Your task to perform on an android device: change the clock style Image 0: 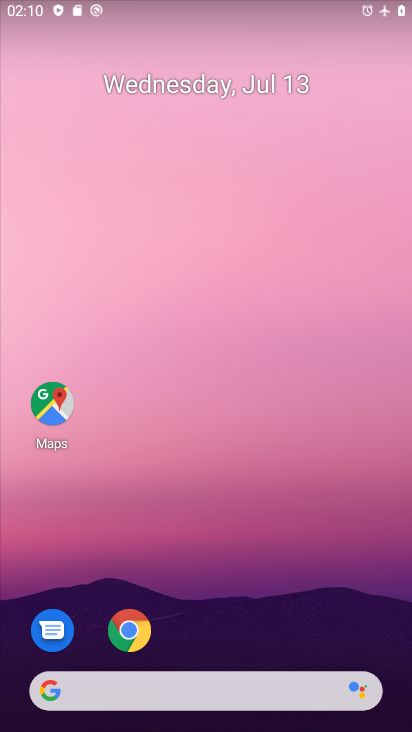
Step 0: drag from (196, 644) to (198, 316)
Your task to perform on an android device: change the clock style Image 1: 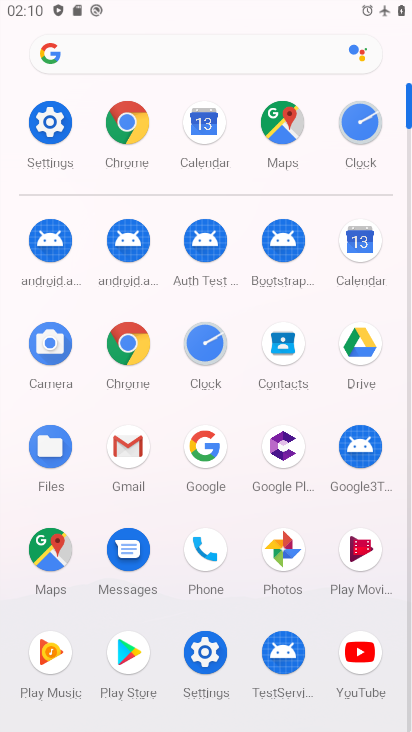
Step 1: click (344, 143)
Your task to perform on an android device: change the clock style Image 2: 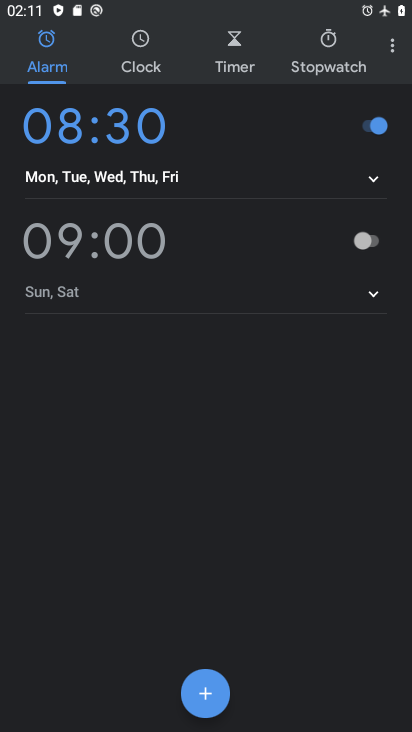
Step 2: click (384, 50)
Your task to perform on an android device: change the clock style Image 3: 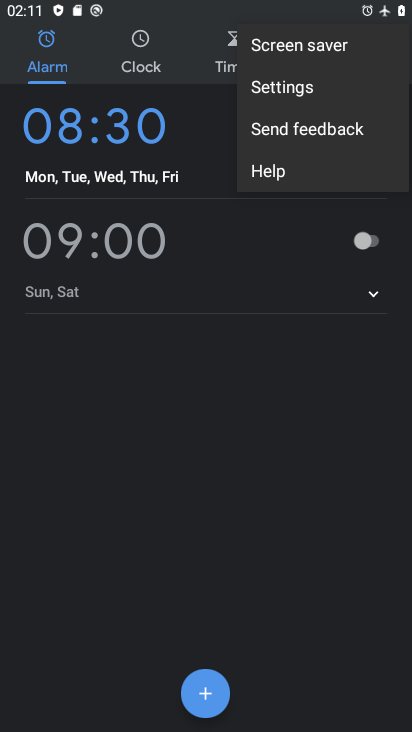
Step 3: click (338, 84)
Your task to perform on an android device: change the clock style Image 4: 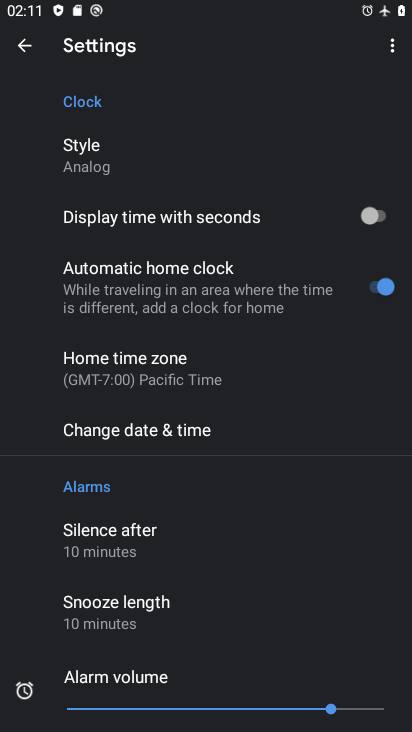
Step 4: click (142, 163)
Your task to perform on an android device: change the clock style Image 5: 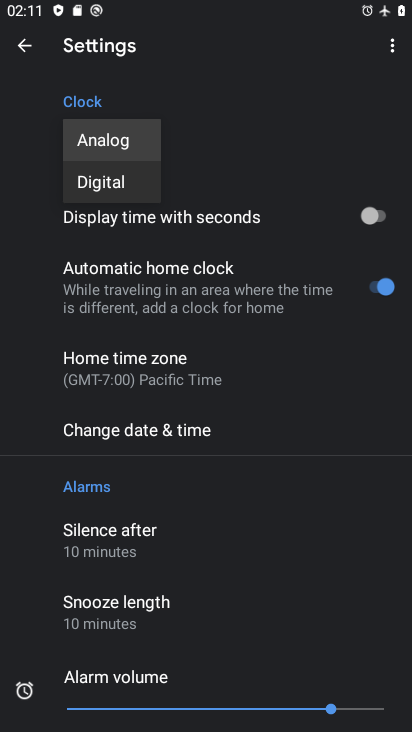
Step 5: click (121, 188)
Your task to perform on an android device: change the clock style Image 6: 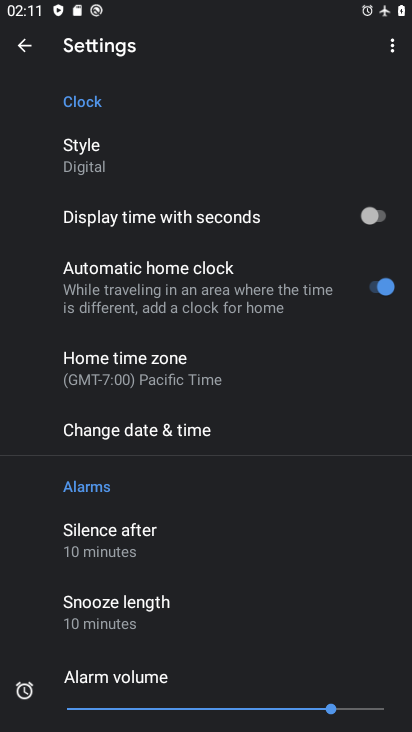
Step 6: task complete